Your task to perform on an android device: toggle translation in the chrome app Image 0: 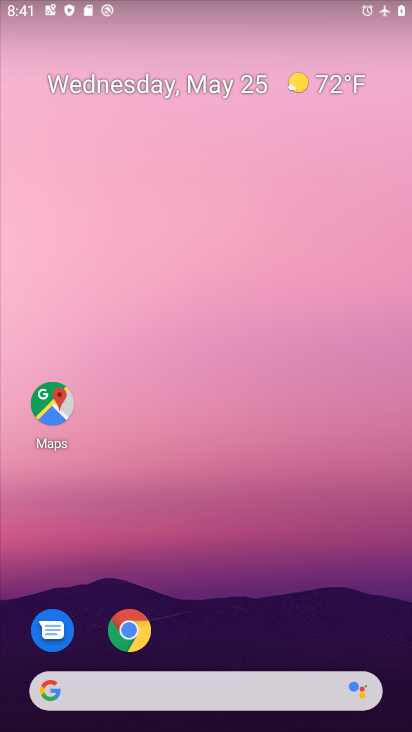
Step 0: click (139, 625)
Your task to perform on an android device: toggle translation in the chrome app Image 1: 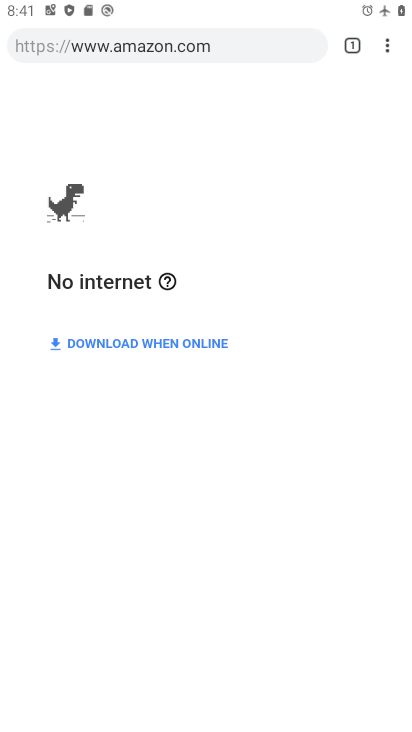
Step 1: drag from (387, 51) to (253, 514)
Your task to perform on an android device: toggle translation in the chrome app Image 2: 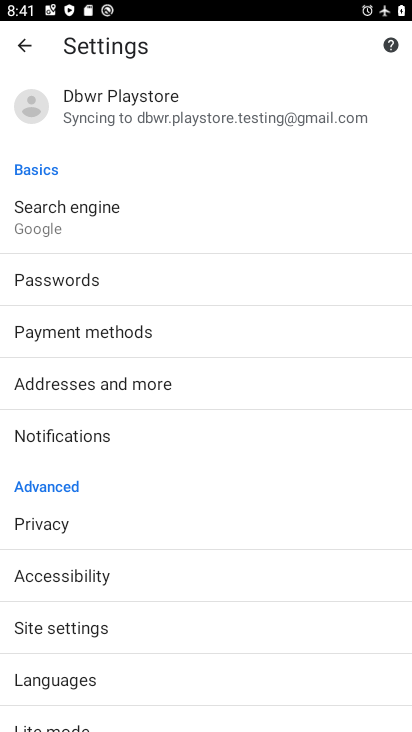
Step 2: click (106, 681)
Your task to perform on an android device: toggle translation in the chrome app Image 3: 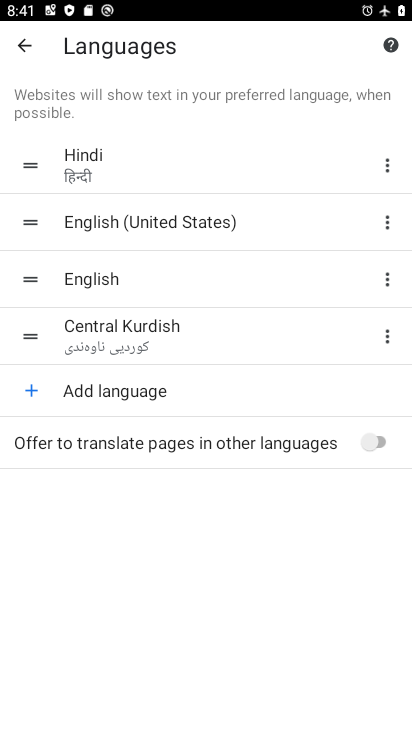
Step 3: click (377, 442)
Your task to perform on an android device: toggle translation in the chrome app Image 4: 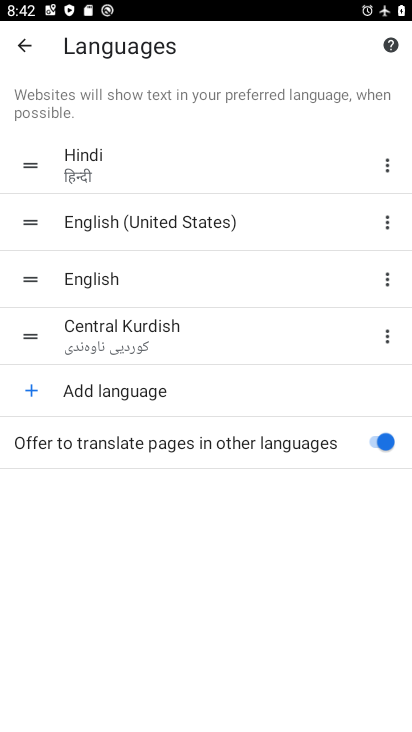
Step 4: task complete